Your task to perform on an android device: Go to ESPN.com Image 0: 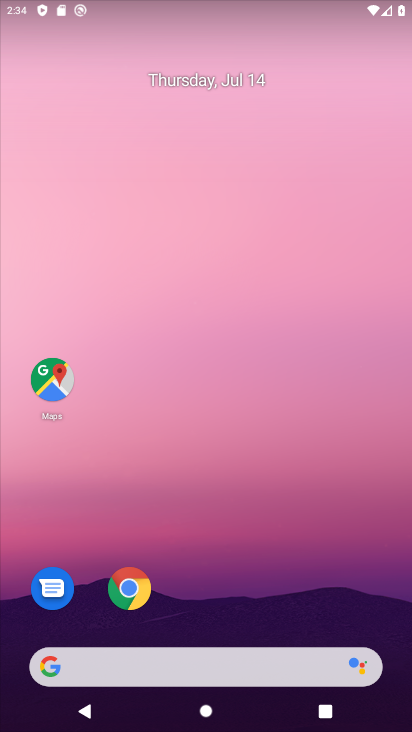
Step 0: drag from (193, 643) to (147, 84)
Your task to perform on an android device: Go to ESPN.com Image 1: 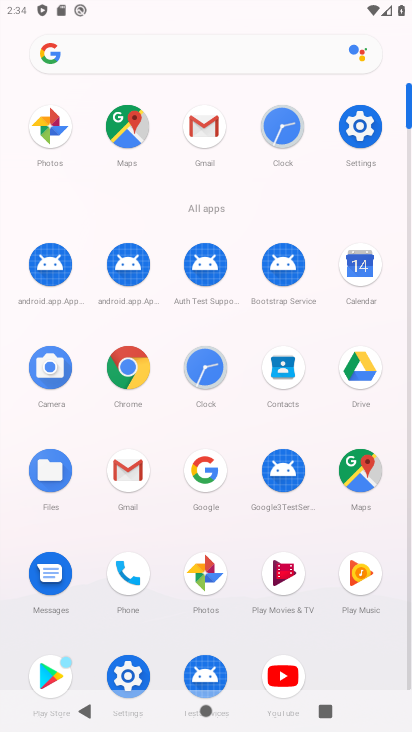
Step 1: click (120, 386)
Your task to perform on an android device: Go to ESPN.com Image 2: 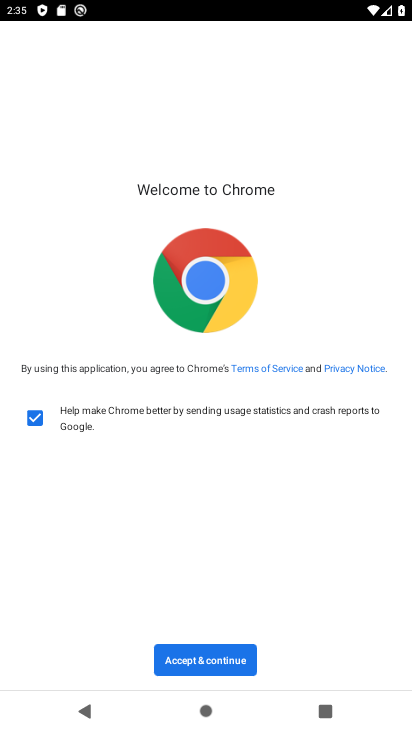
Step 2: click (216, 660)
Your task to perform on an android device: Go to ESPN.com Image 3: 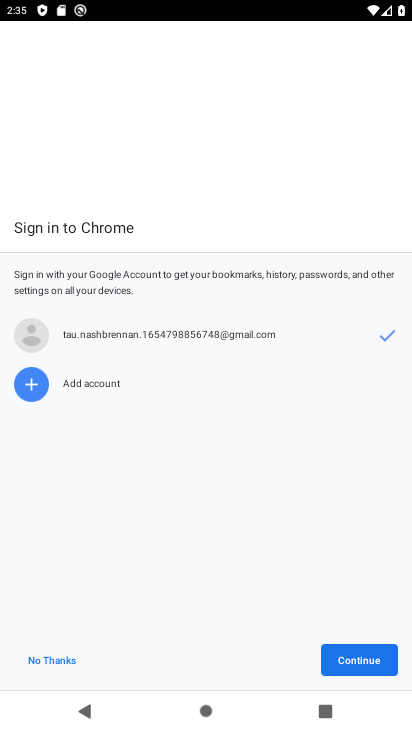
Step 3: click (328, 655)
Your task to perform on an android device: Go to ESPN.com Image 4: 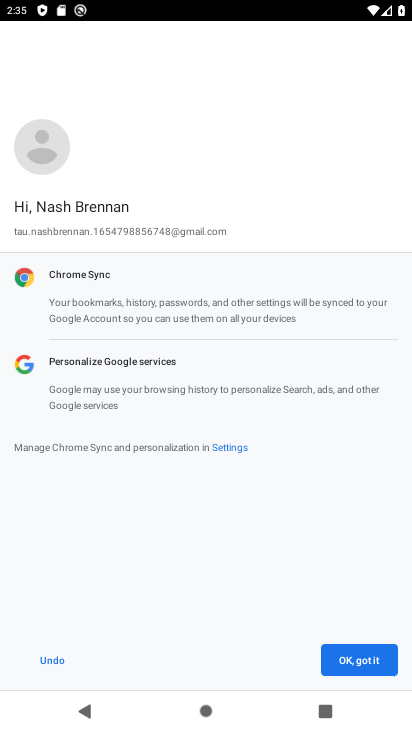
Step 4: click (331, 654)
Your task to perform on an android device: Go to ESPN.com Image 5: 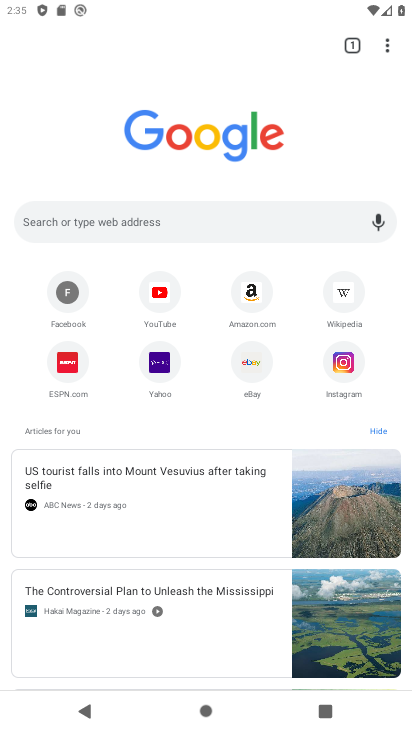
Step 5: click (71, 374)
Your task to perform on an android device: Go to ESPN.com Image 6: 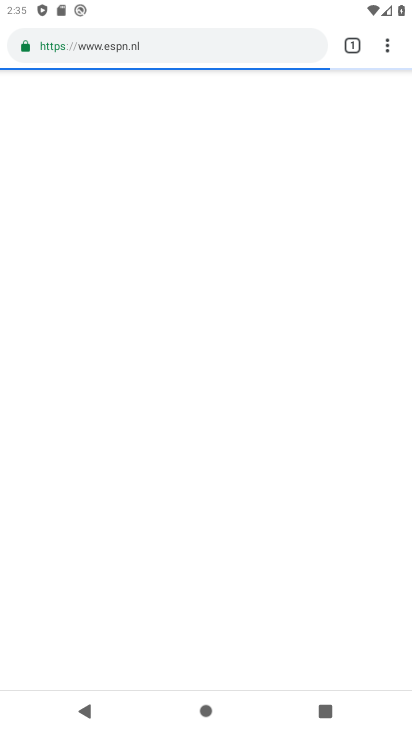
Step 6: task complete